Your task to perform on an android device: What is the speed of a jet? Image 0: 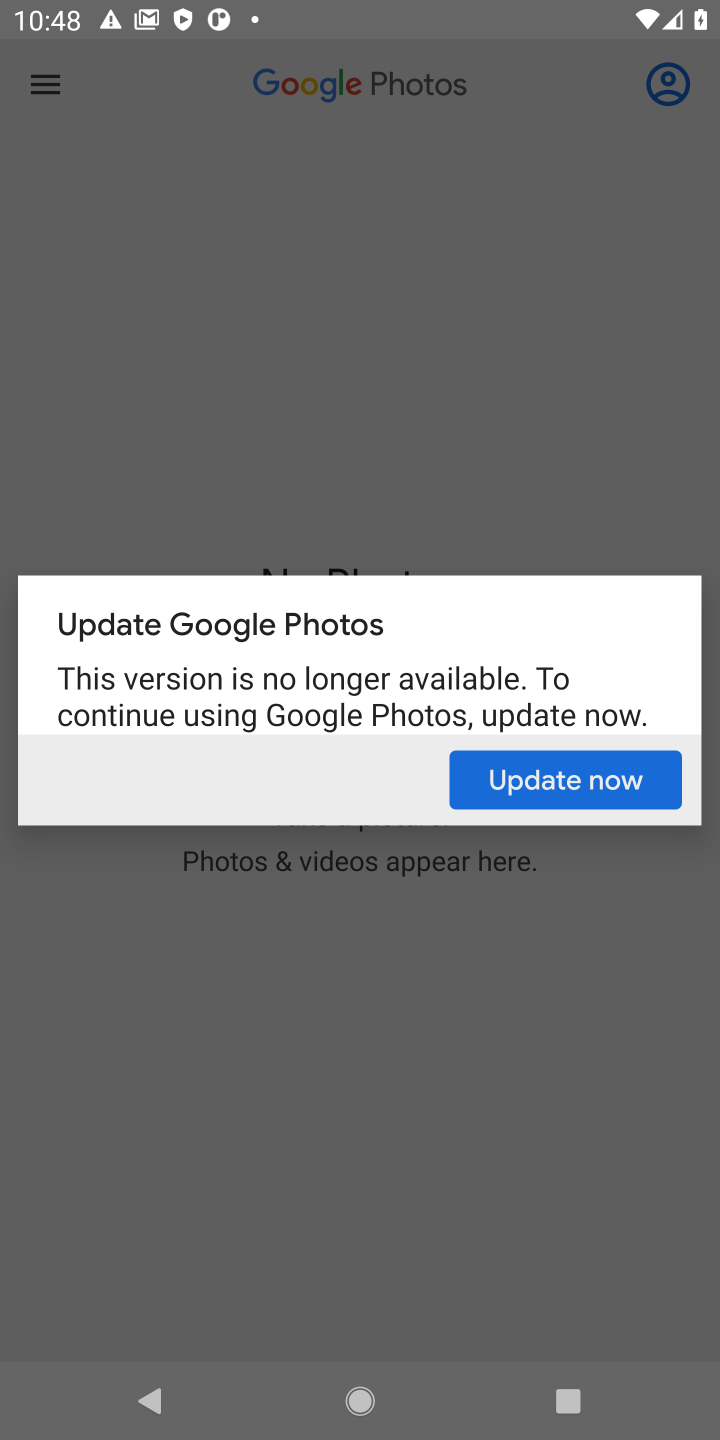
Step 0: press home button
Your task to perform on an android device: What is the speed of a jet? Image 1: 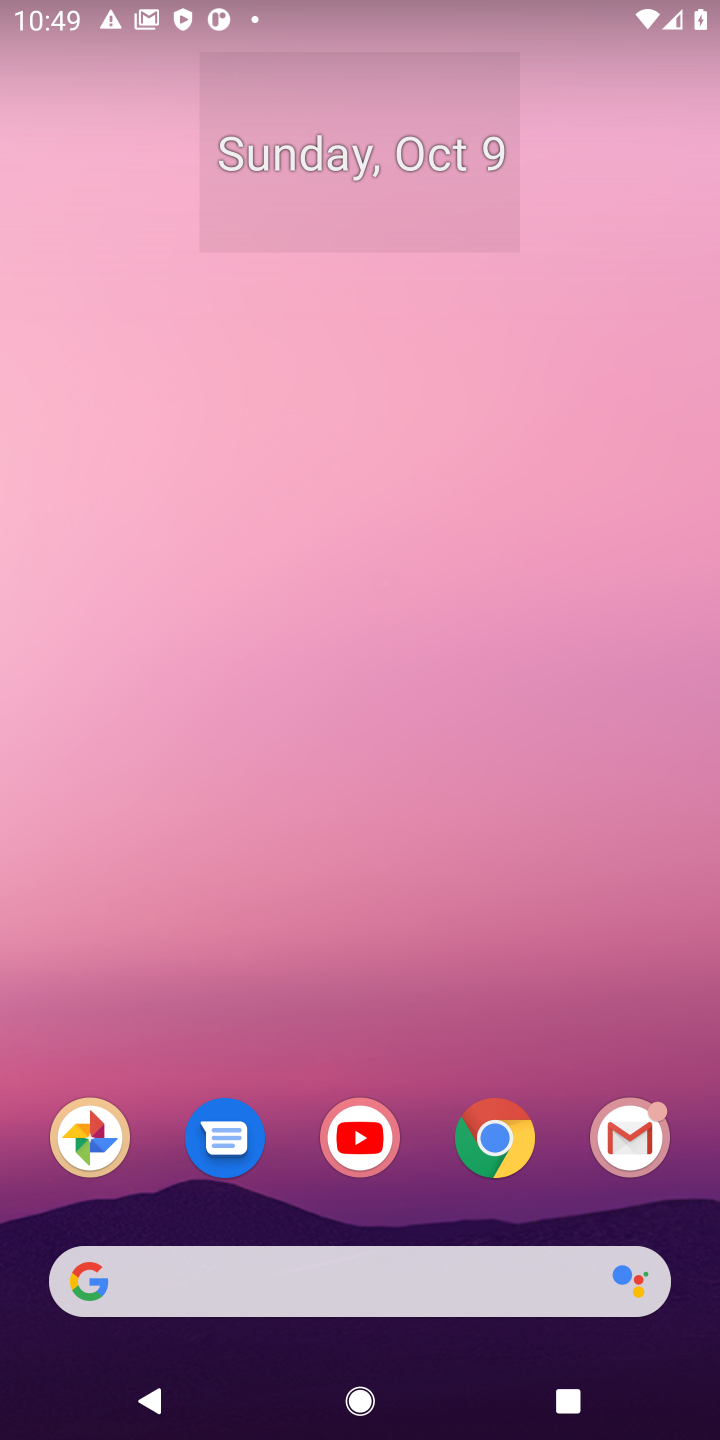
Step 1: click (482, 1132)
Your task to perform on an android device: What is the speed of a jet? Image 2: 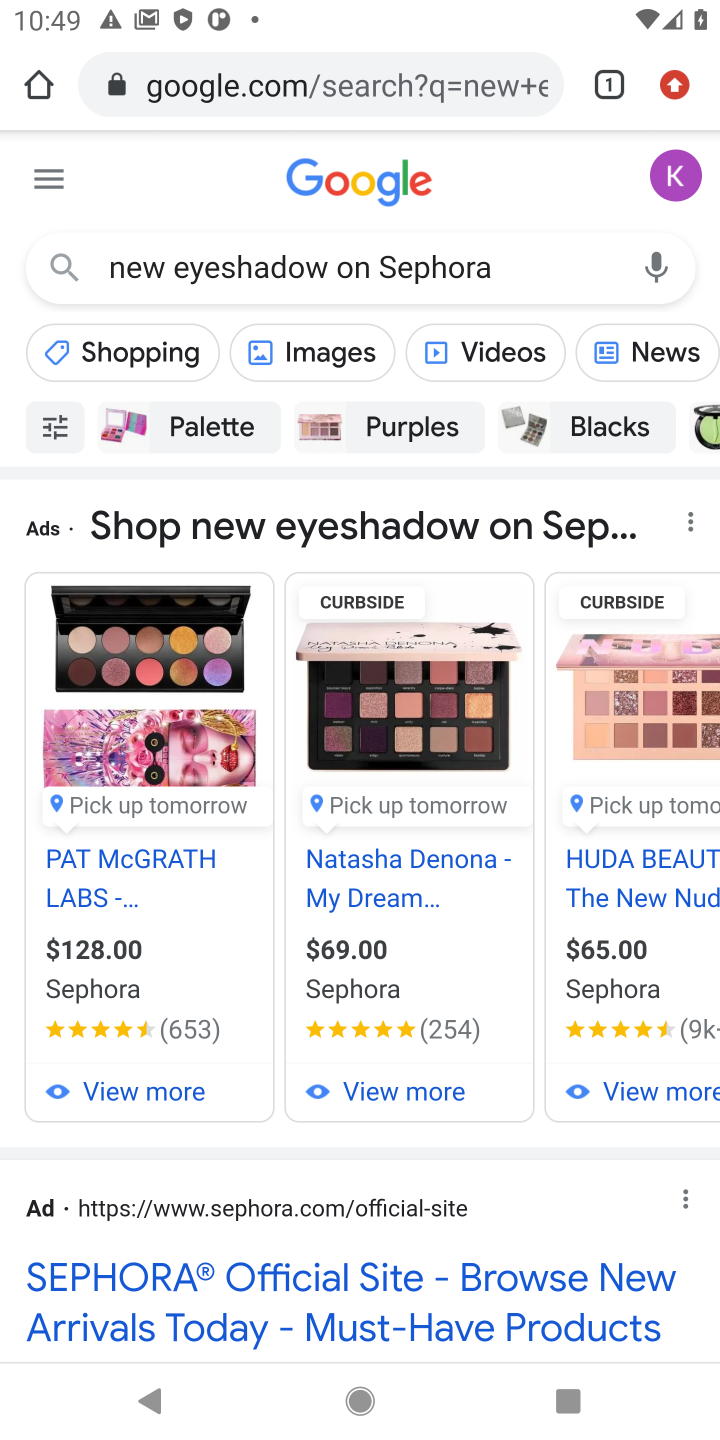
Step 2: click (520, 254)
Your task to perform on an android device: What is the speed of a jet? Image 3: 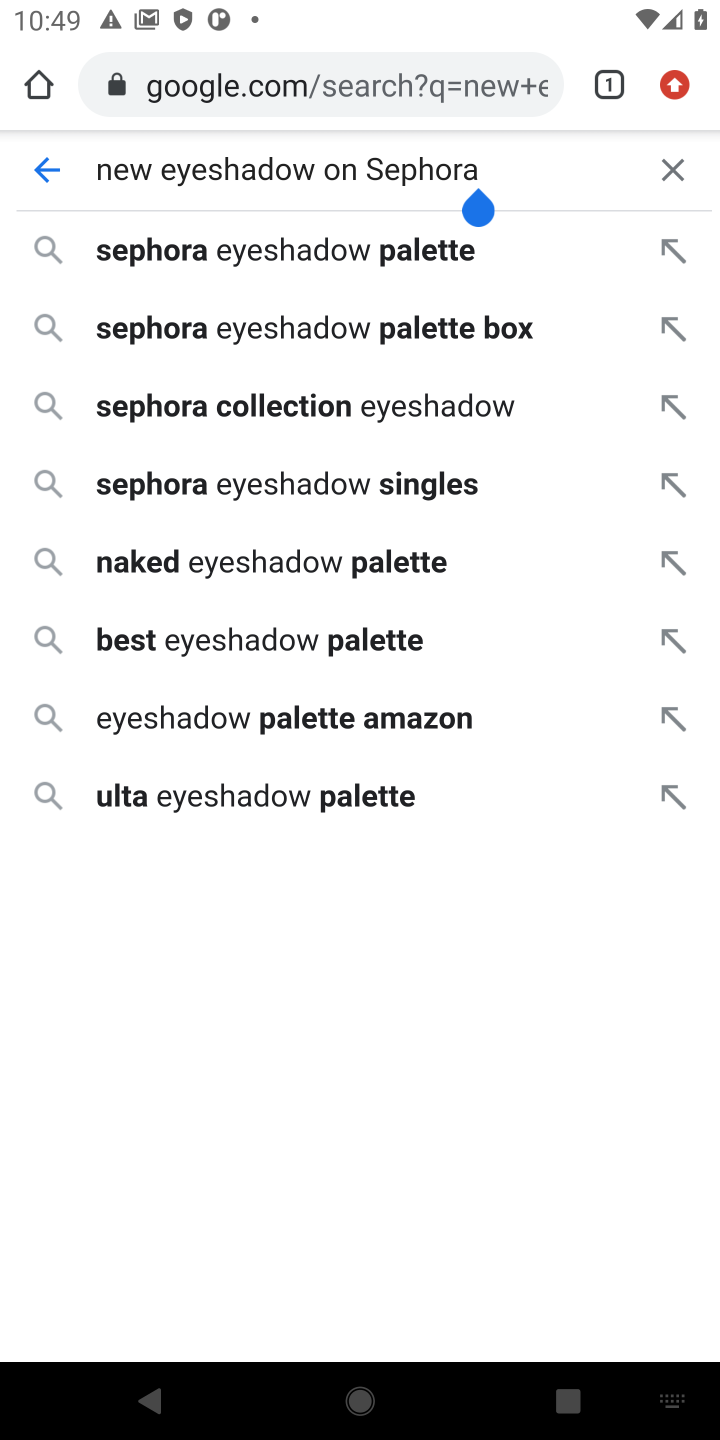
Step 3: click (671, 178)
Your task to perform on an android device: What is the speed of a jet? Image 4: 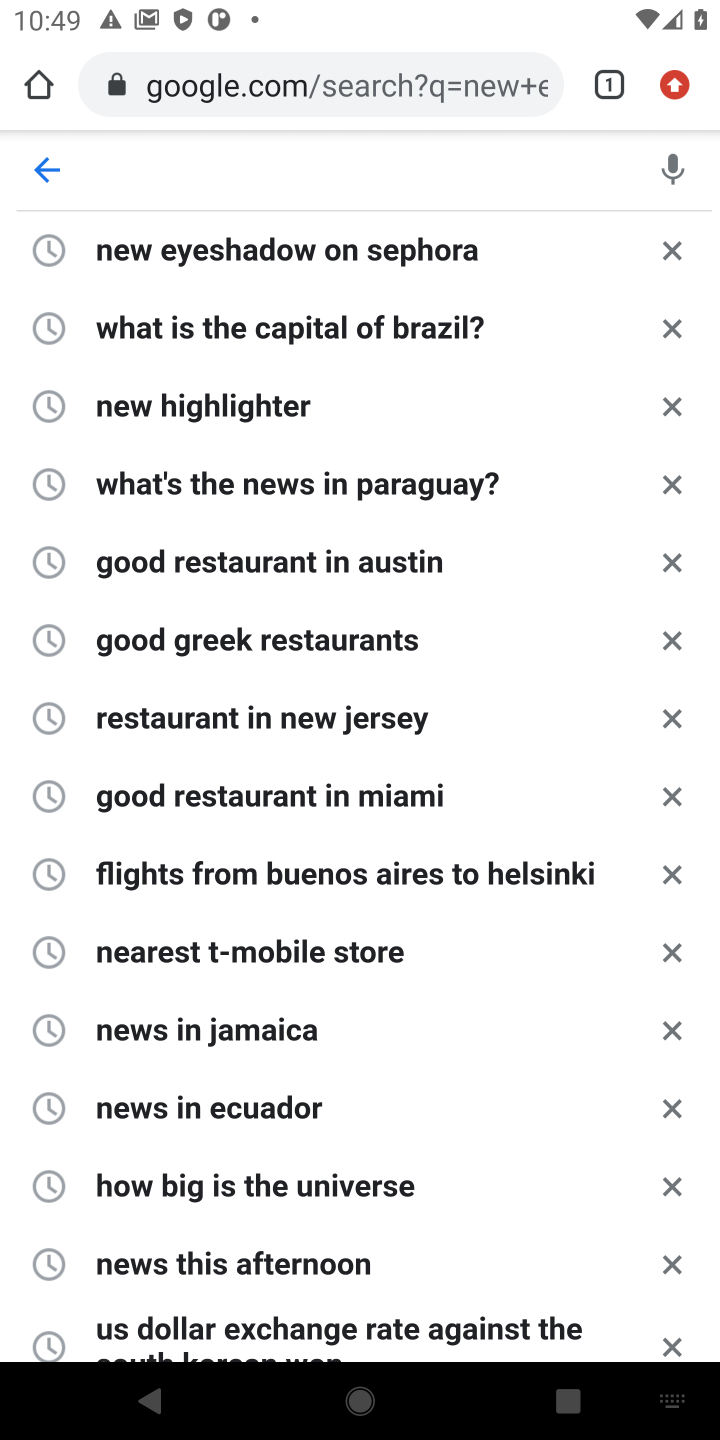
Step 4: drag from (526, 1439) to (615, 1438)
Your task to perform on an android device: What is the speed of a jet? Image 5: 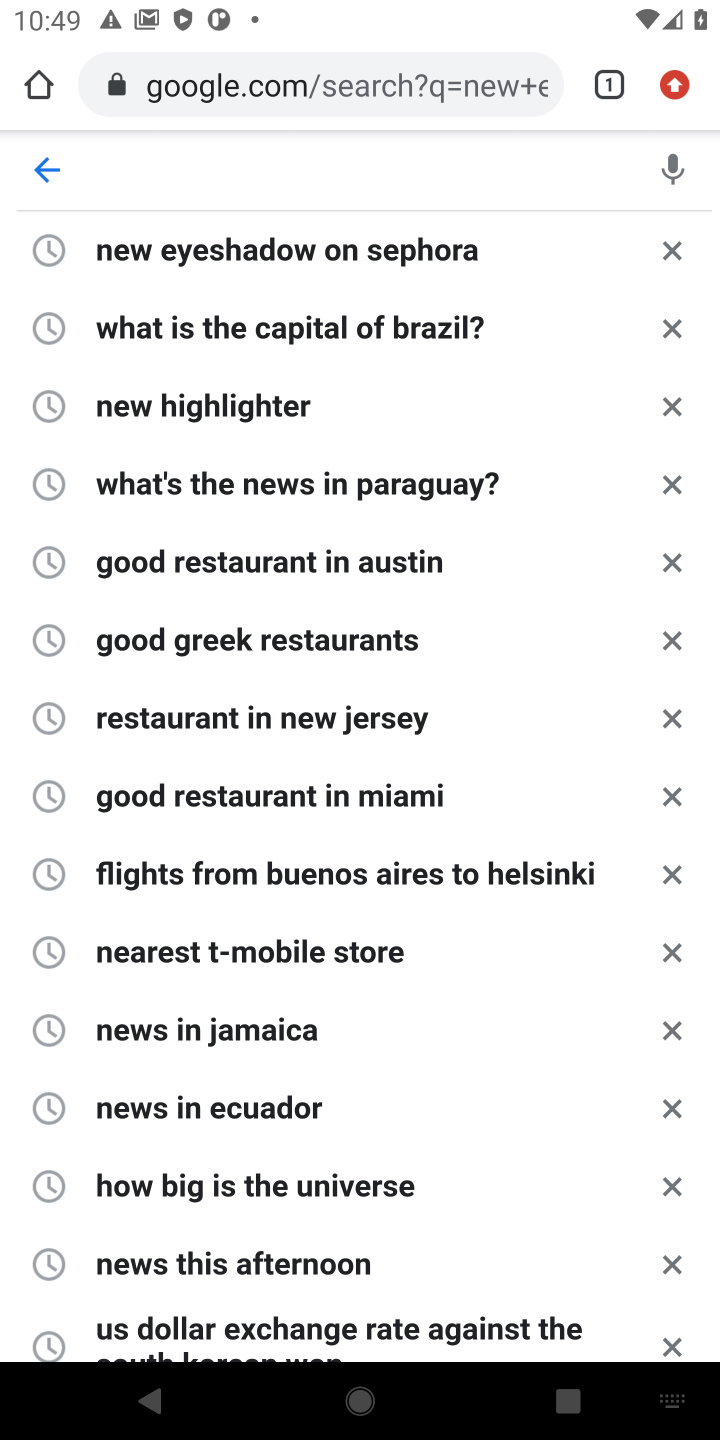
Step 5: type "What is the speed of a jet?"
Your task to perform on an android device: What is the speed of a jet? Image 6: 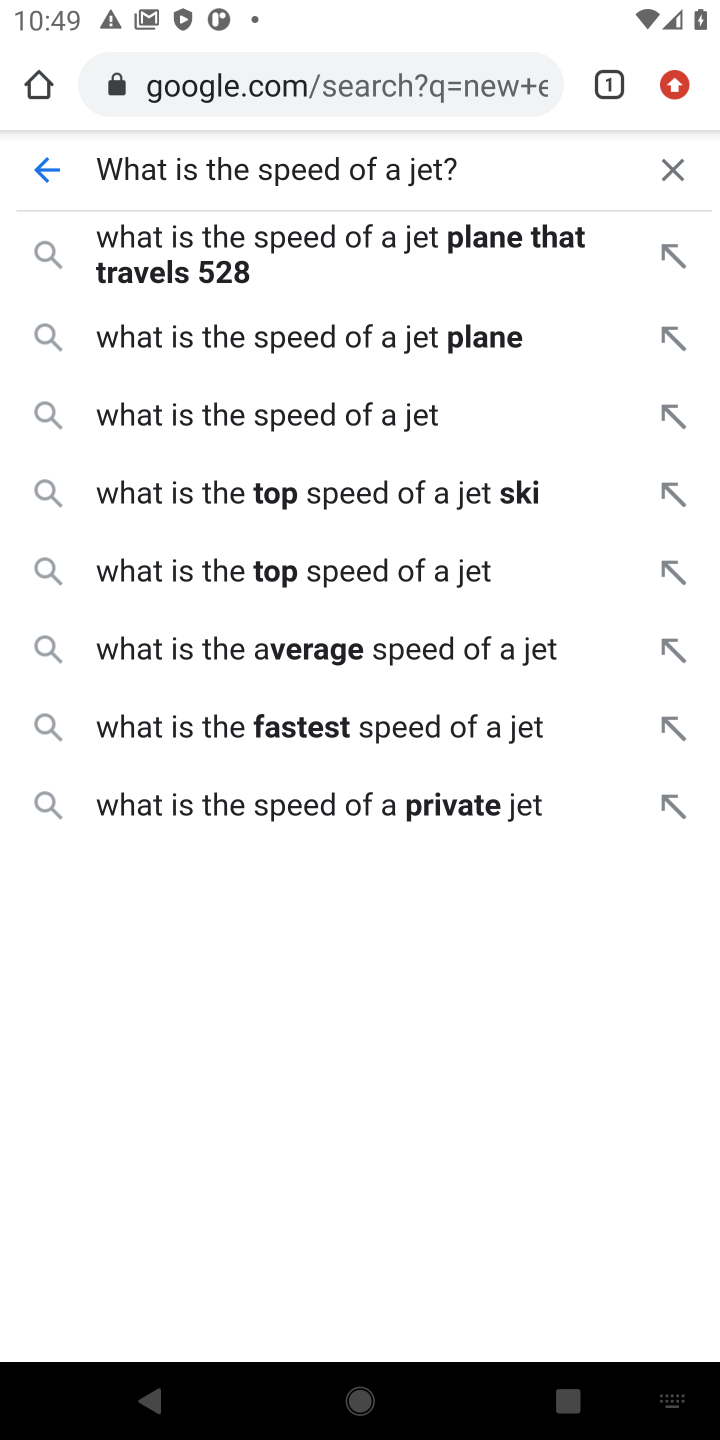
Step 6: press enter
Your task to perform on an android device: What is the speed of a jet? Image 7: 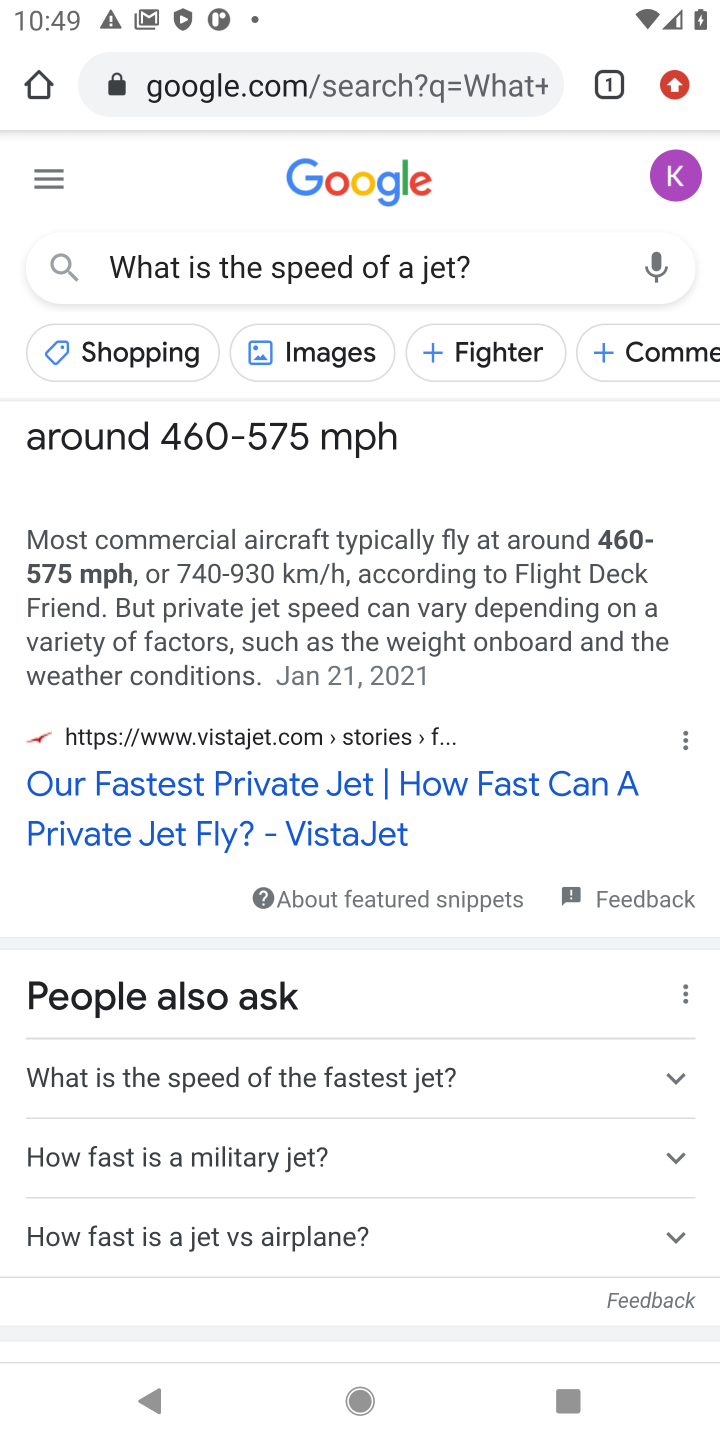
Step 7: task complete